Your task to perform on an android device: Go to accessibility settings Image 0: 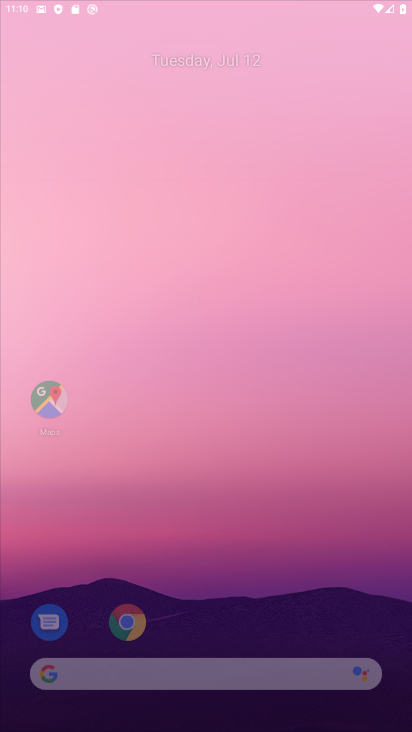
Step 0: click (330, 75)
Your task to perform on an android device: Go to accessibility settings Image 1: 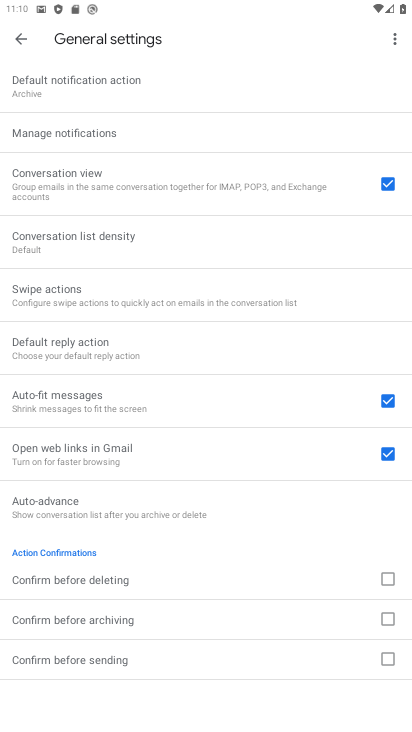
Step 1: press home button
Your task to perform on an android device: Go to accessibility settings Image 2: 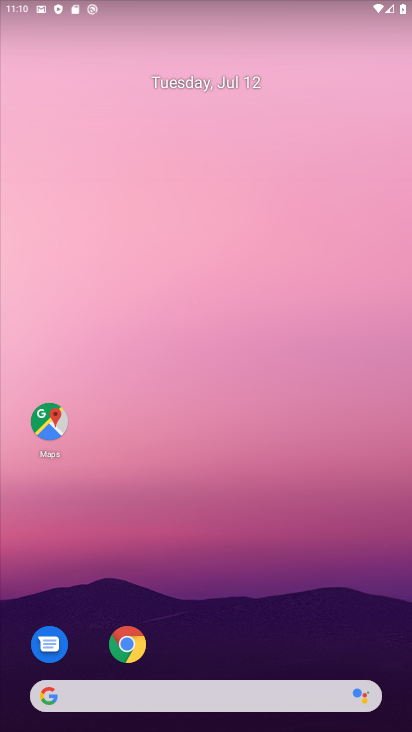
Step 2: drag from (186, 671) to (368, 57)
Your task to perform on an android device: Go to accessibility settings Image 3: 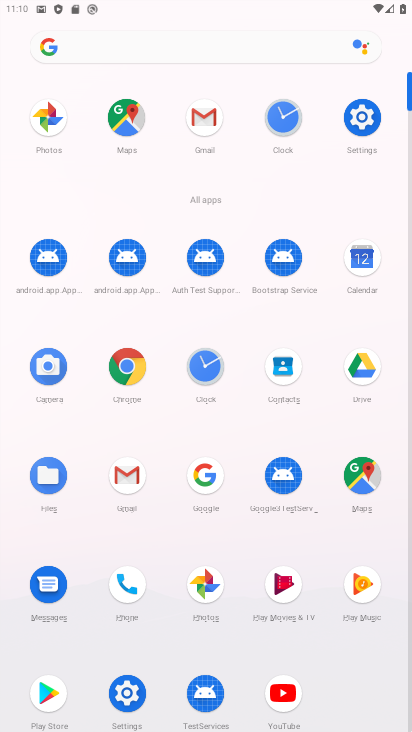
Step 3: click (124, 684)
Your task to perform on an android device: Go to accessibility settings Image 4: 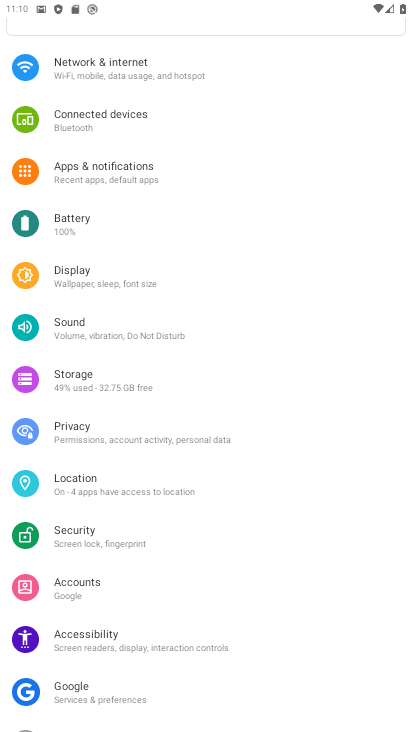
Step 4: click (89, 639)
Your task to perform on an android device: Go to accessibility settings Image 5: 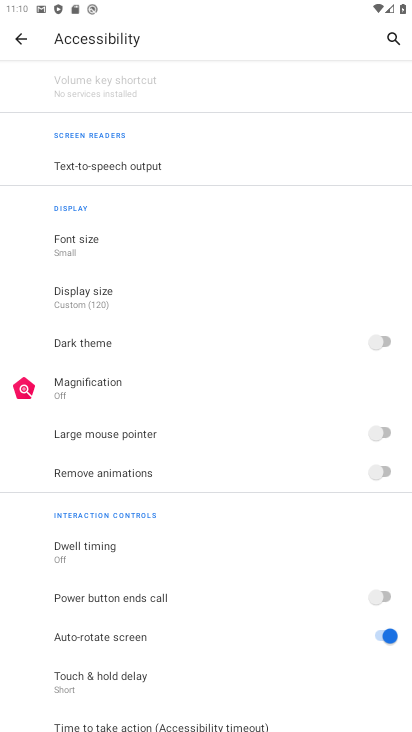
Step 5: task complete